Your task to perform on an android device: Show me the alarms in the clock app Image 0: 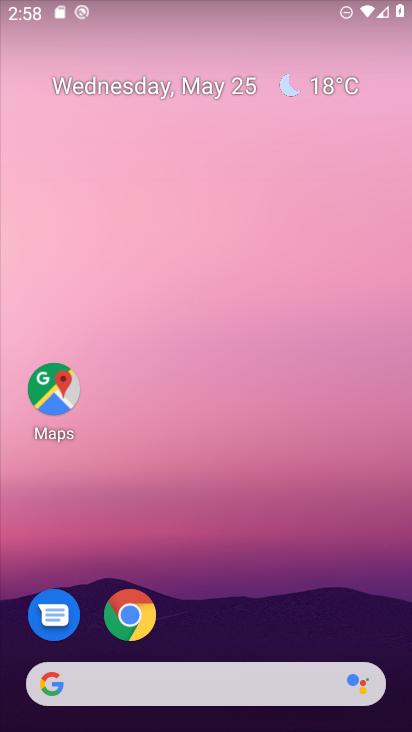
Step 0: drag from (279, 561) to (291, 55)
Your task to perform on an android device: Show me the alarms in the clock app Image 1: 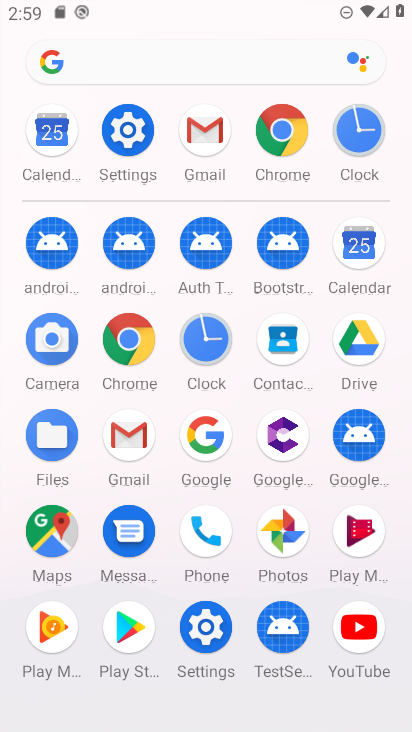
Step 1: click (357, 142)
Your task to perform on an android device: Show me the alarms in the clock app Image 2: 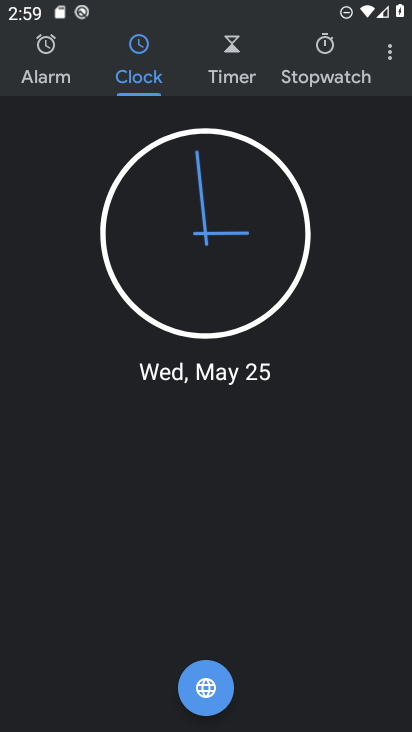
Step 2: click (58, 71)
Your task to perform on an android device: Show me the alarms in the clock app Image 3: 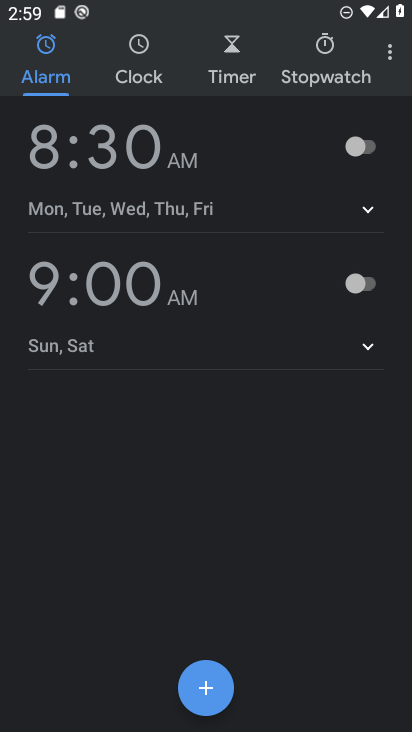
Step 3: task complete